Your task to perform on an android device: clear all cookies in the chrome app Image 0: 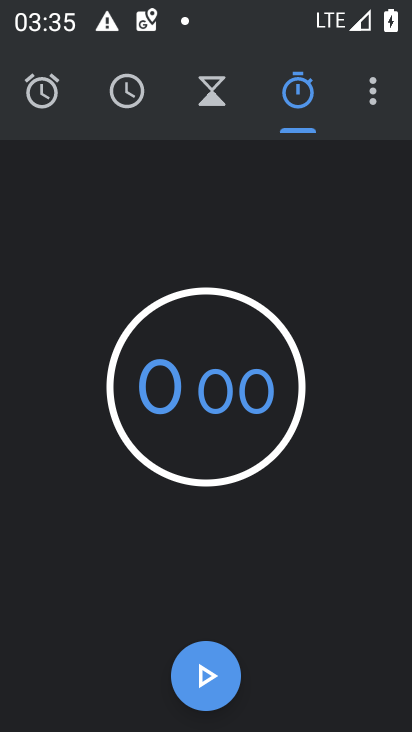
Step 0: press home button
Your task to perform on an android device: clear all cookies in the chrome app Image 1: 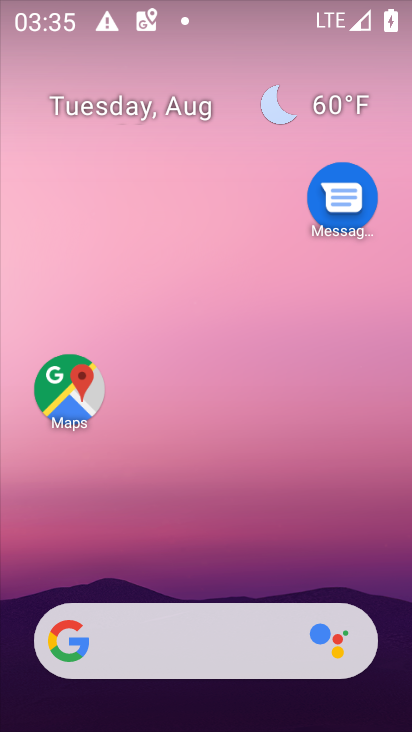
Step 1: drag from (245, 599) to (208, 100)
Your task to perform on an android device: clear all cookies in the chrome app Image 2: 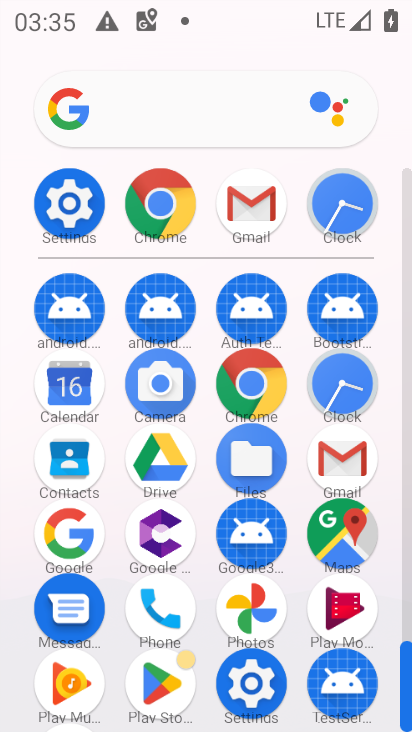
Step 2: click (168, 240)
Your task to perform on an android device: clear all cookies in the chrome app Image 3: 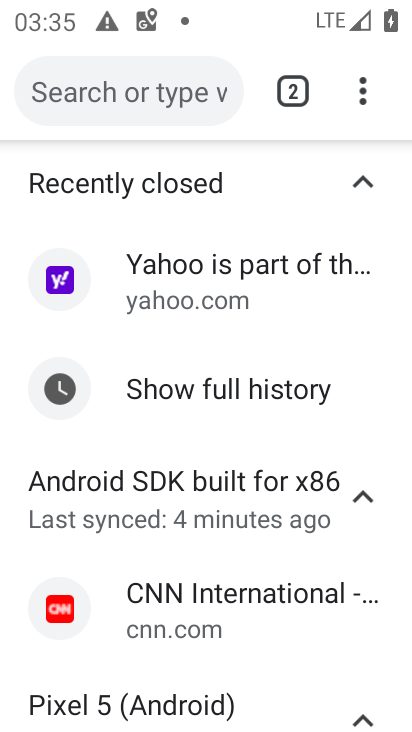
Step 3: click (351, 117)
Your task to perform on an android device: clear all cookies in the chrome app Image 4: 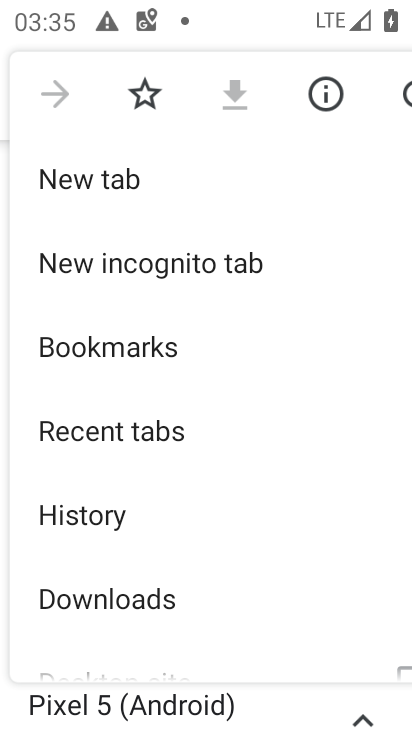
Step 4: drag from (186, 606) to (175, 237)
Your task to perform on an android device: clear all cookies in the chrome app Image 5: 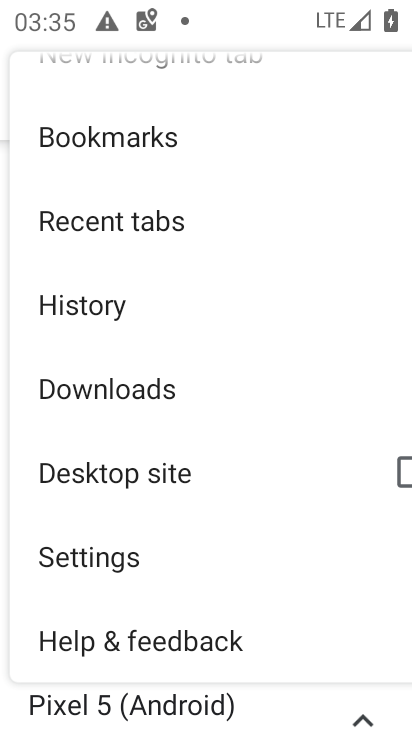
Step 5: click (141, 586)
Your task to perform on an android device: clear all cookies in the chrome app Image 6: 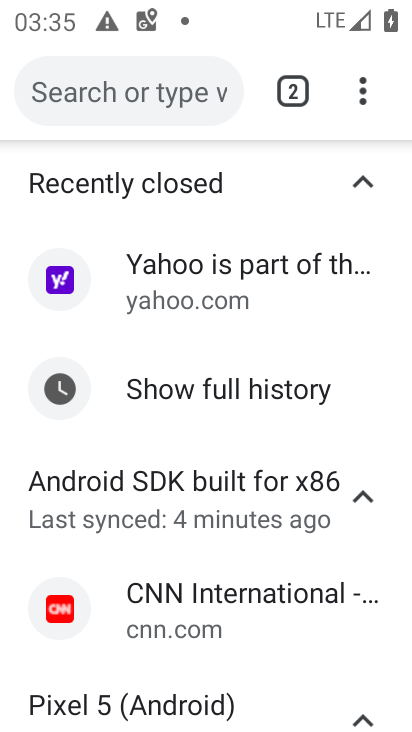
Step 6: click (141, 586)
Your task to perform on an android device: clear all cookies in the chrome app Image 7: 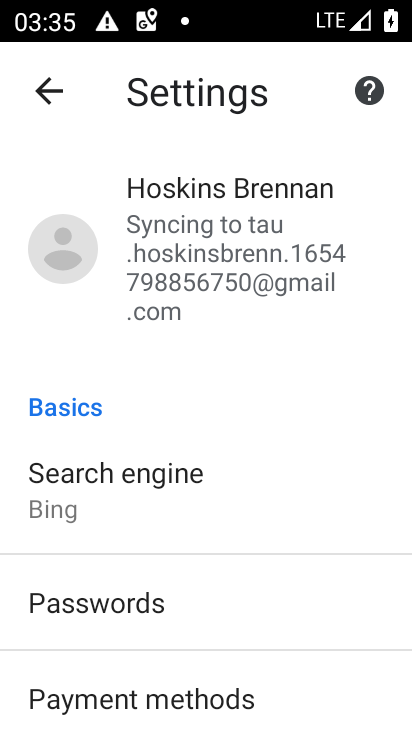
Step 7: task complete